Your task to perform on an android device: Show me productivity apps on the Play Store Image 0: 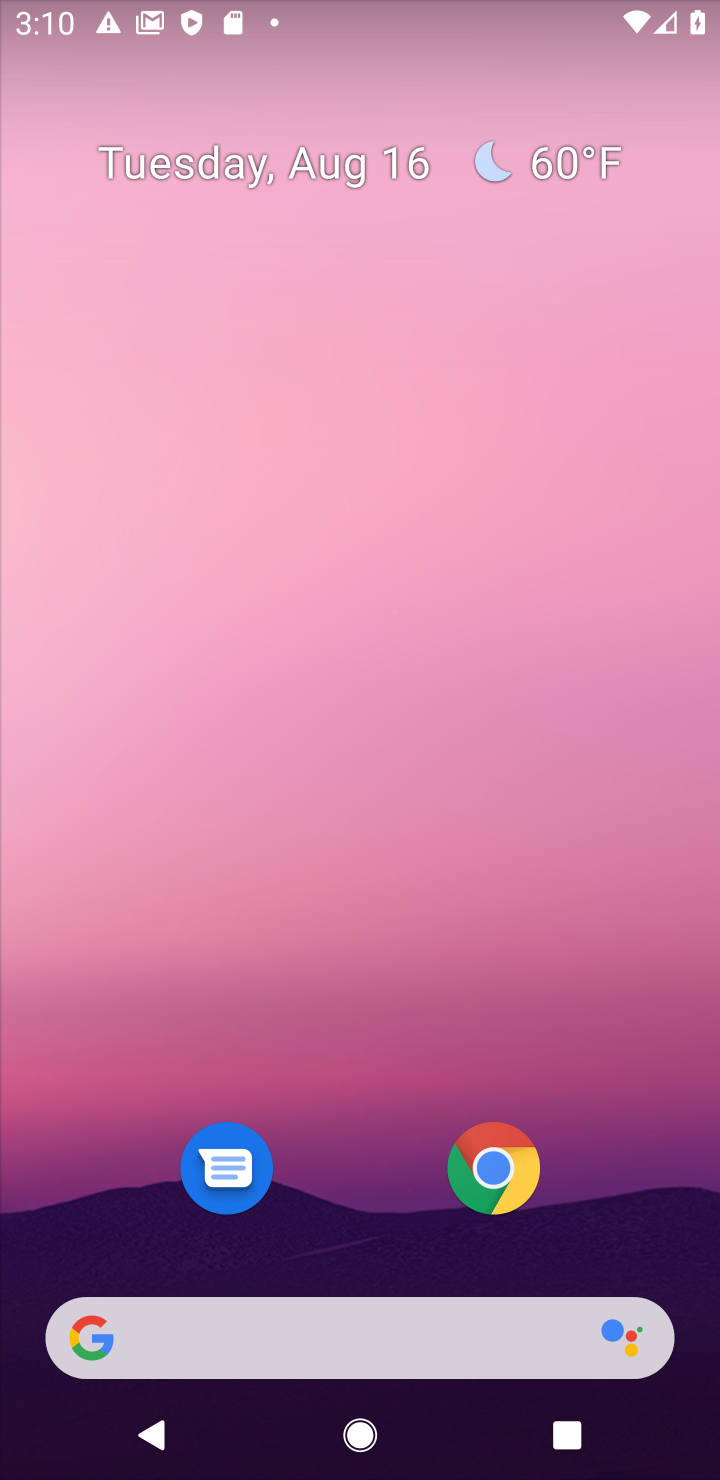
Step 0: press home button
Your task to perform on an android device: Show me productivity apps on the Play Store Image 1: 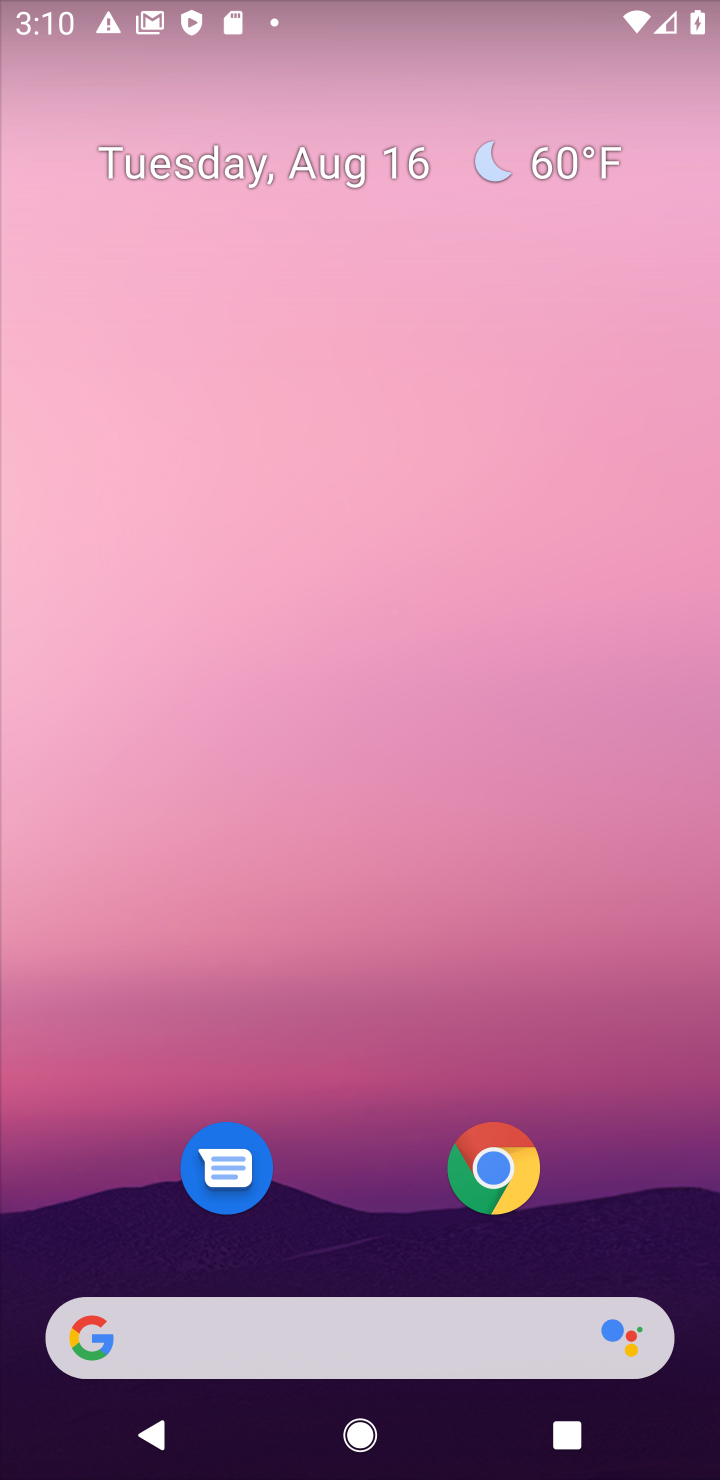
Step 1: drag from (540, 910) to (716, 41)
Your task to perform on an android device: Show me productivity apps on the Play Store Image 2: 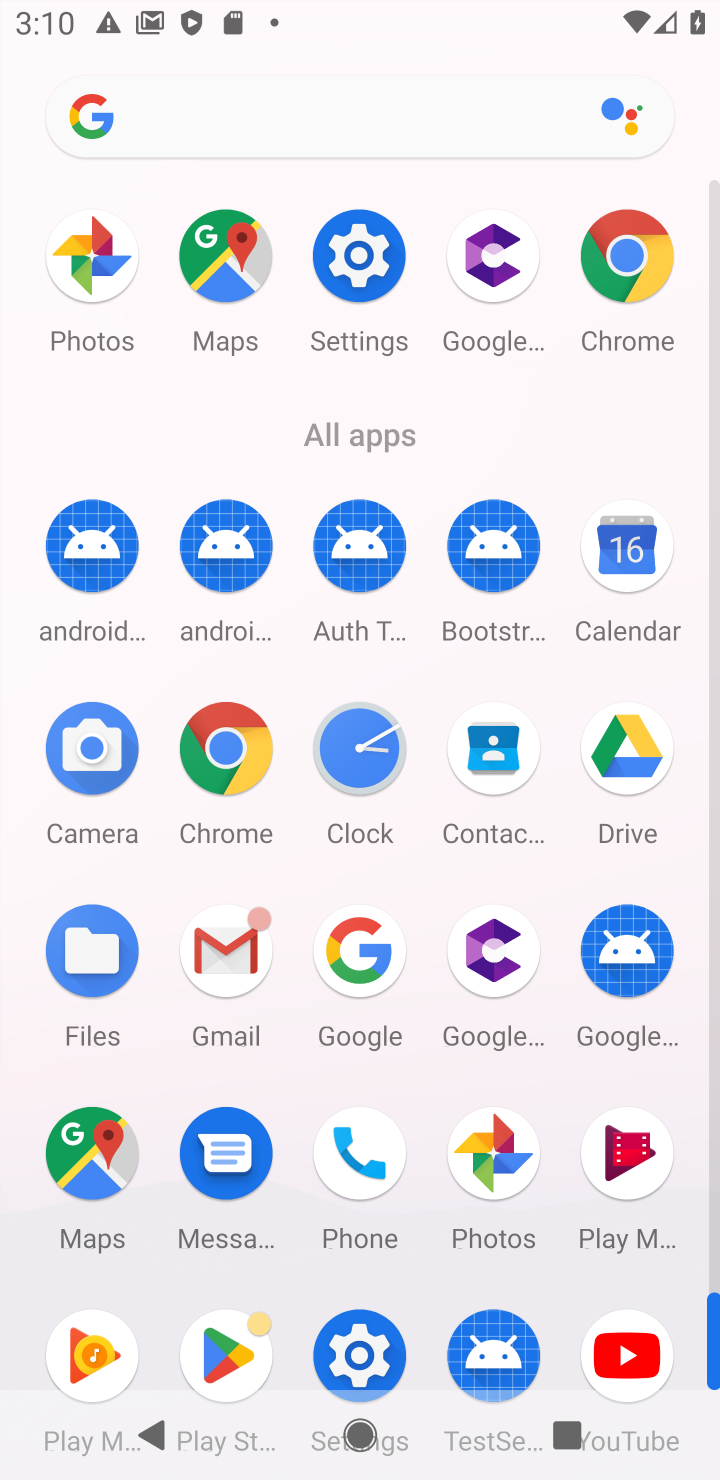
Step 2: click (230, 1337)
Your task to perform on an android device: Show me productivity apps on the Play Store Image 3: 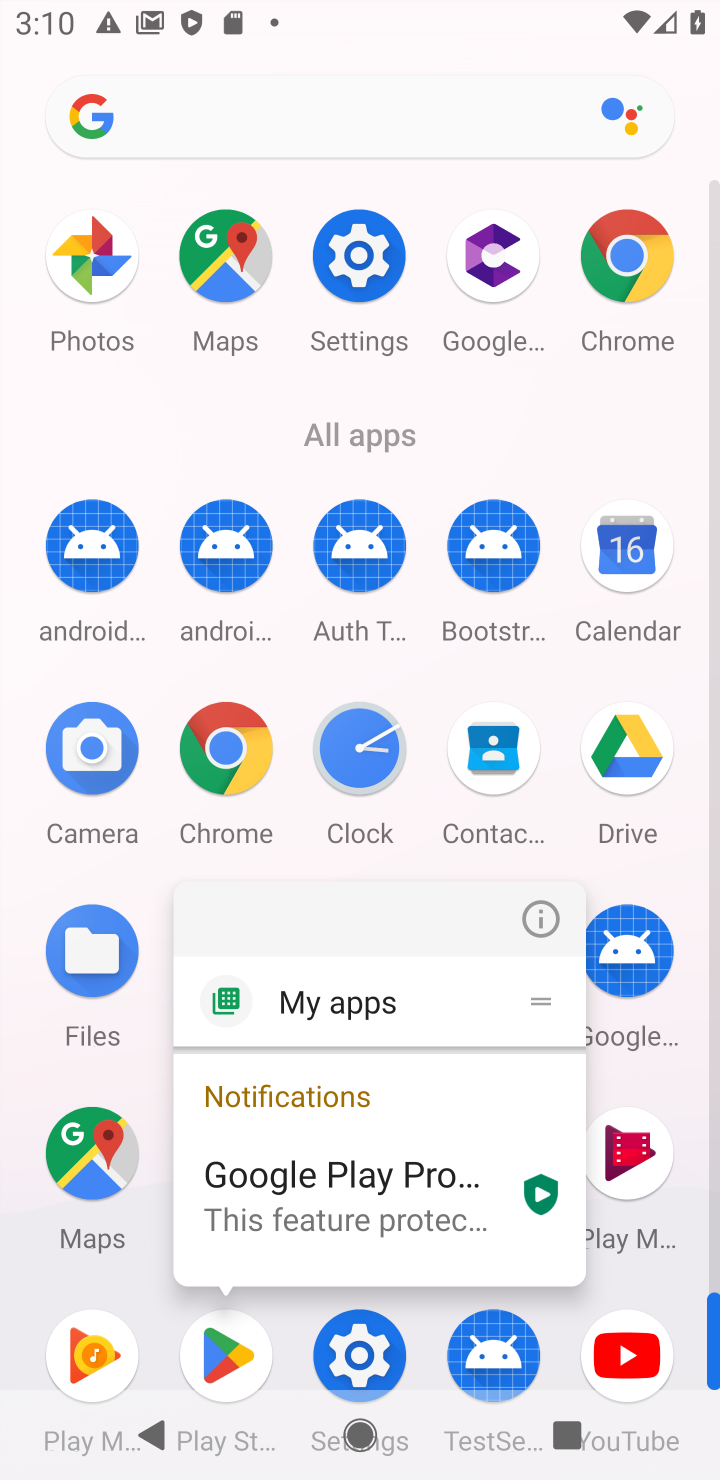
Step 3: click (216, 1353)
Your task to perform on an android device: Show me productivity apps on the Play Store Image 4: 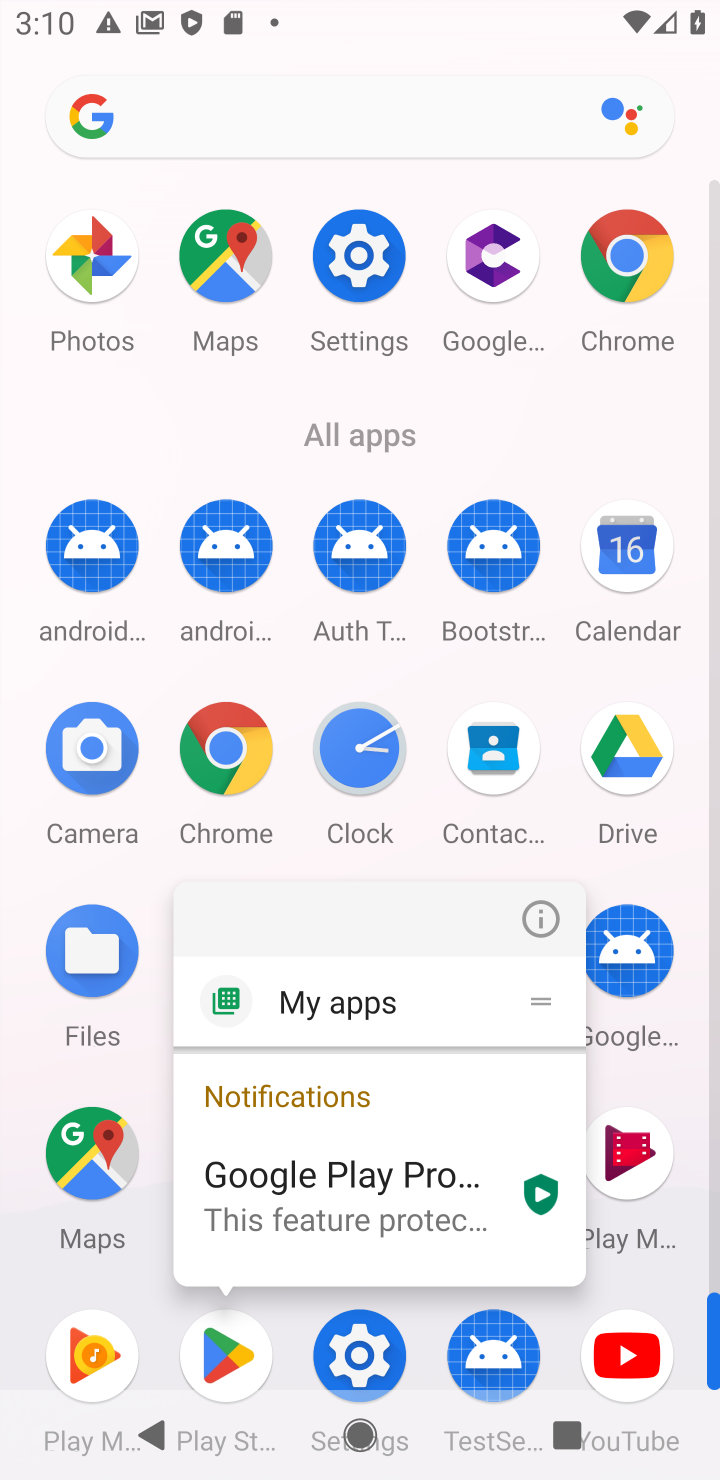
Step 4: click (225, 1346)
Your task to perform on an android device: Show me productivity apps on the Play Store Image 5: 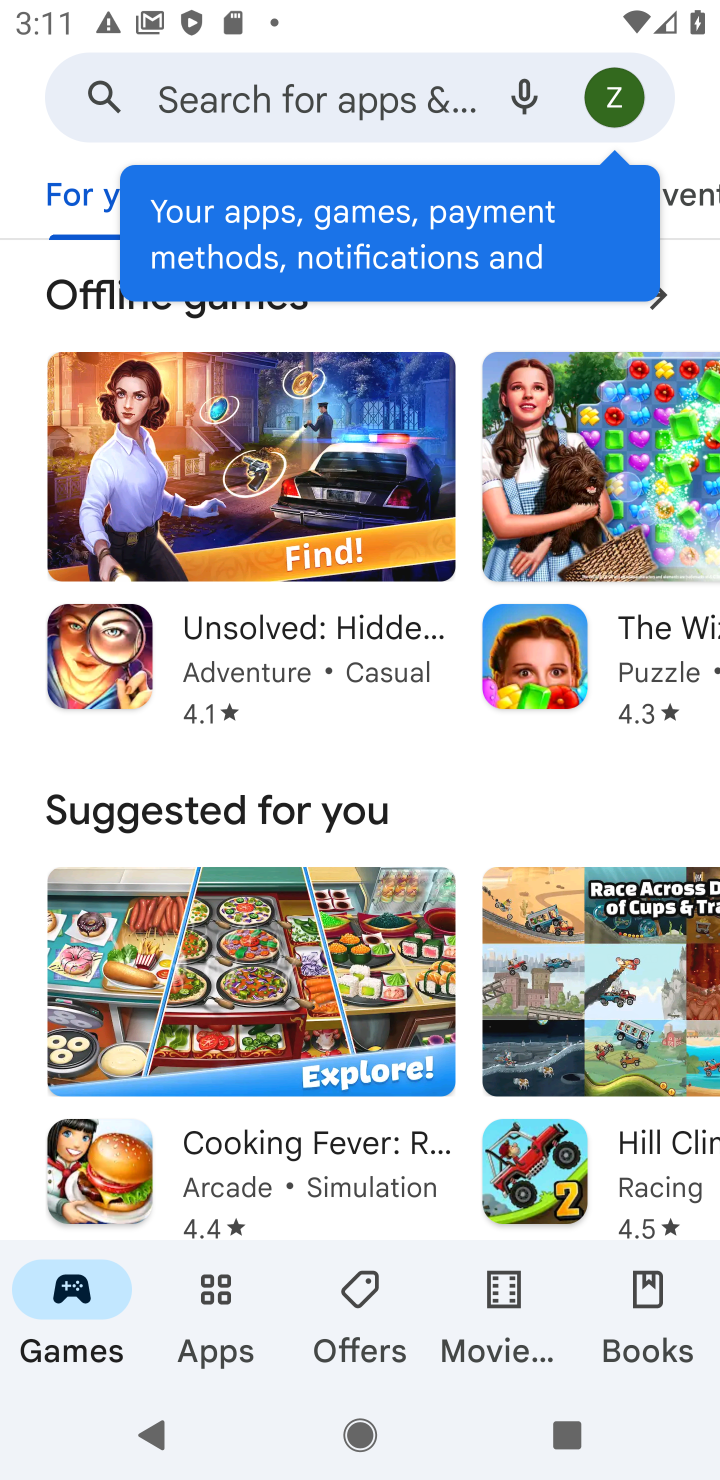
Step 5: click (217, 1303)
Your task to perform on an android device: Show me productivity apps on the Play Store Image 6: 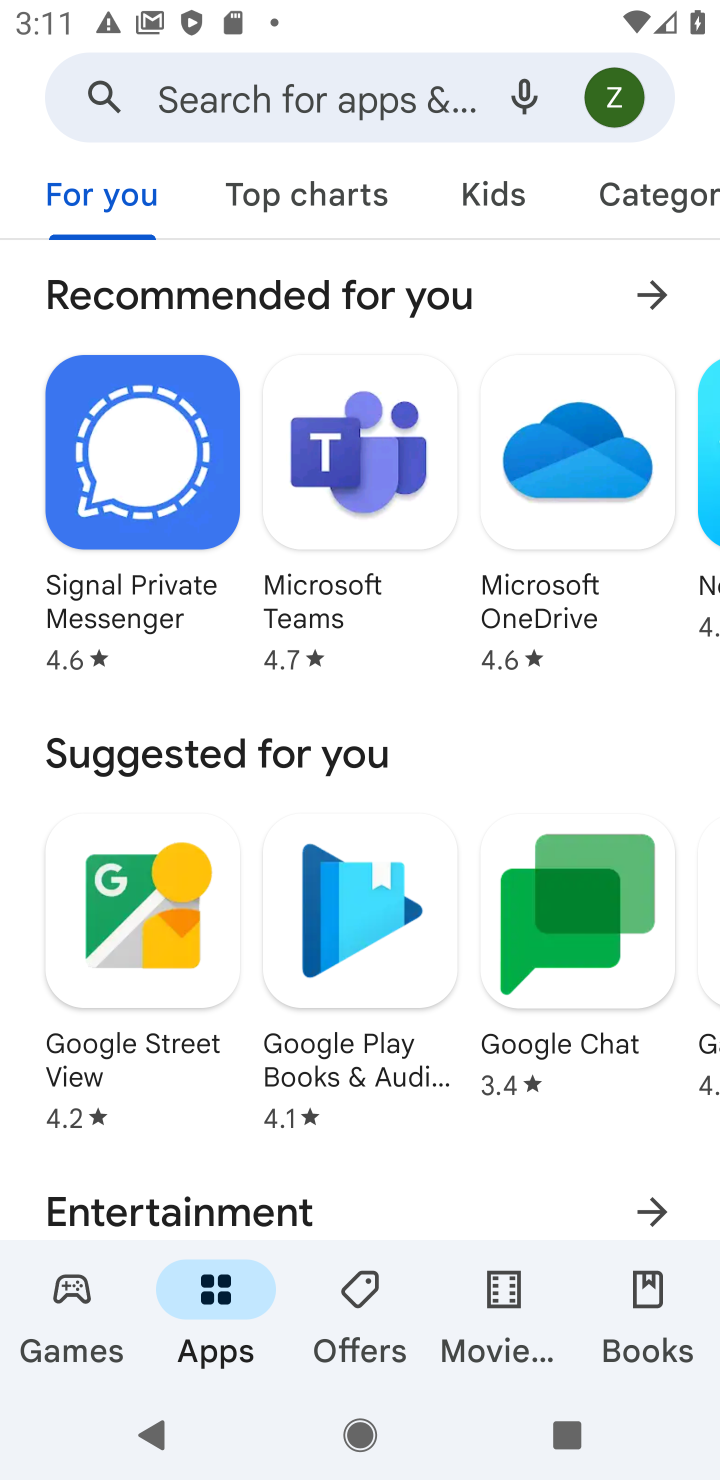
Step 6: click (659, 195)
Your task to perform on an android device: Show me productivity apps on the Play Store Image 7: 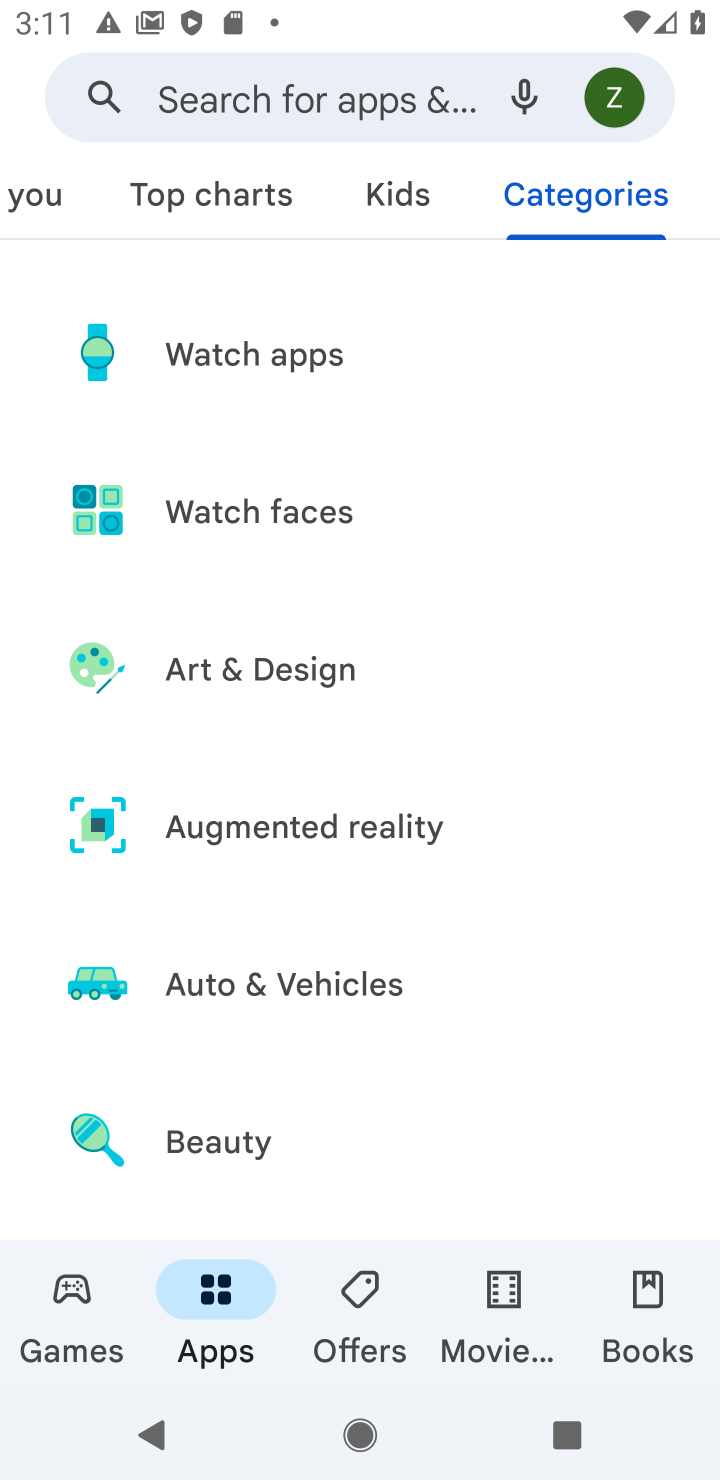
Step 7: drag from (517, 939) to (626, 68)
Your task to perform on an android device: Show me productivity apps on the Play Store Image 8: 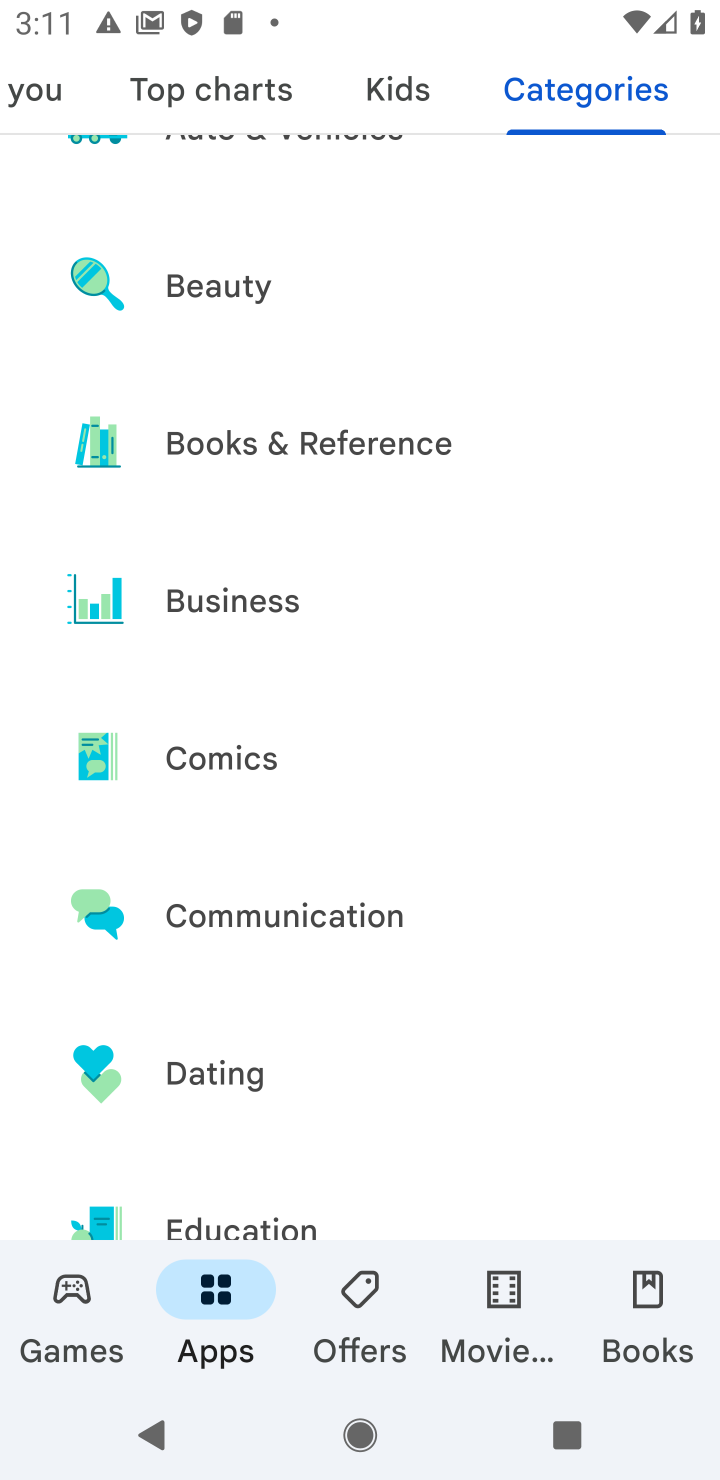
Step 8: drag from (495, 1166) to (711, 3)
Your task to perform on an android device: Show me productivity apps on the Play Store Image 9: 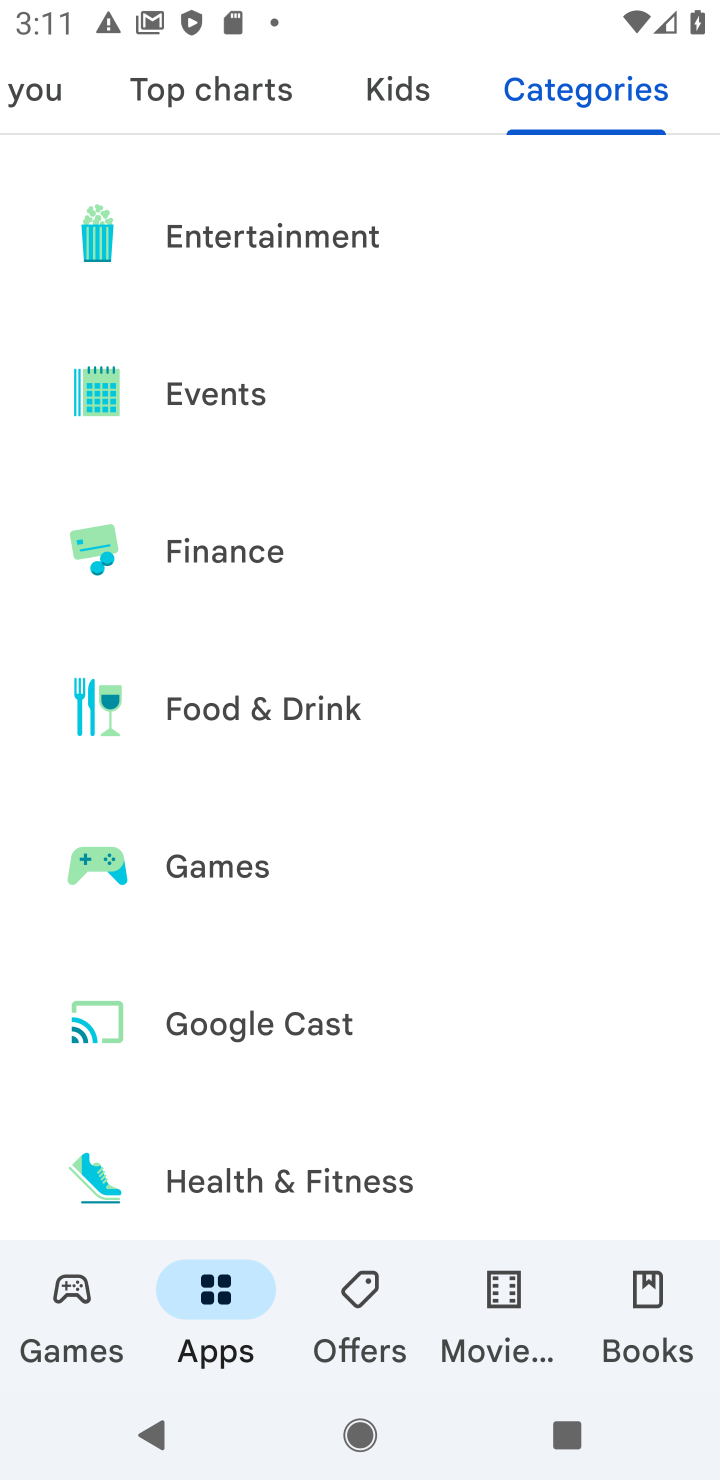
Step 9: drag from (498, 840) to (628, 104)
Your task to perform on an android device: Show me productivity apps on the Play Store Image 10: 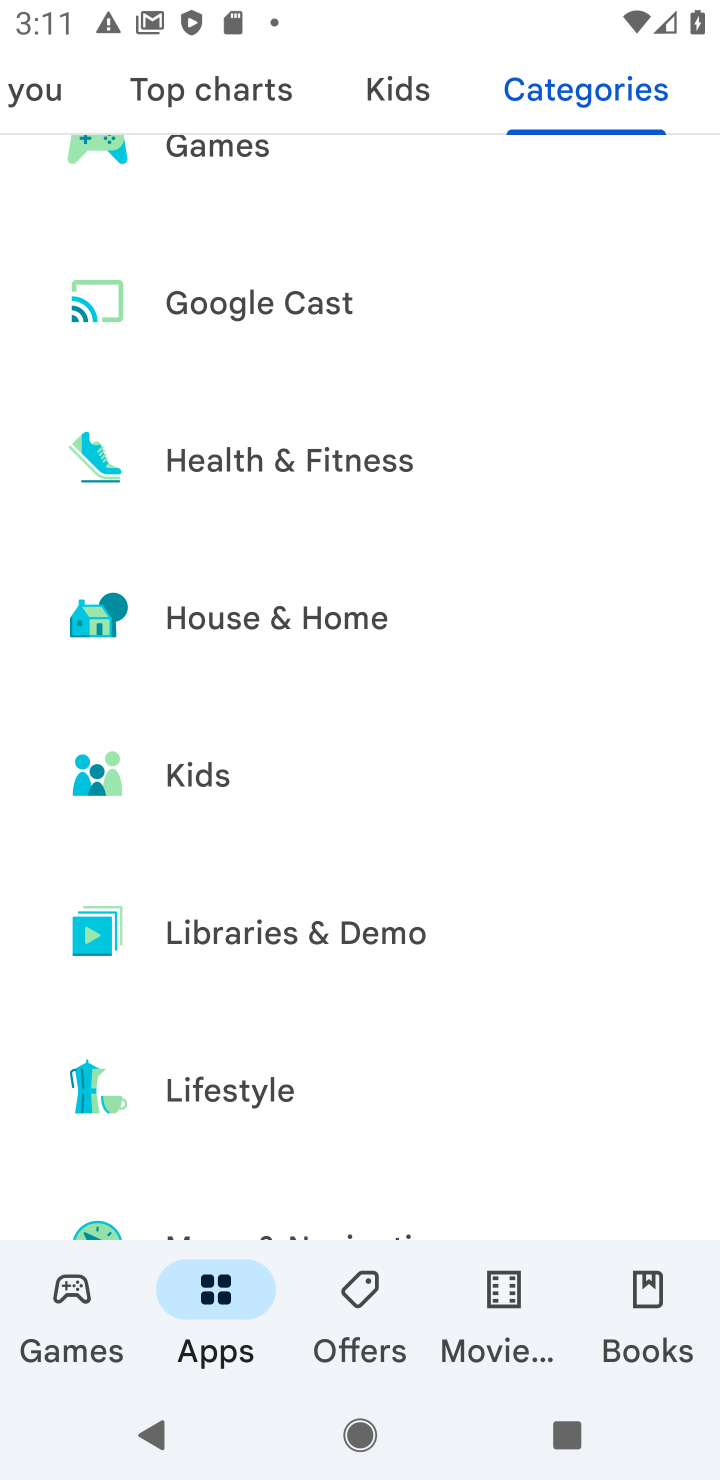
Step 10: drag from (553, 953) to (697, 416)
Your task to perform on an android device: Show me productivity apps on the Play Store Image 11: 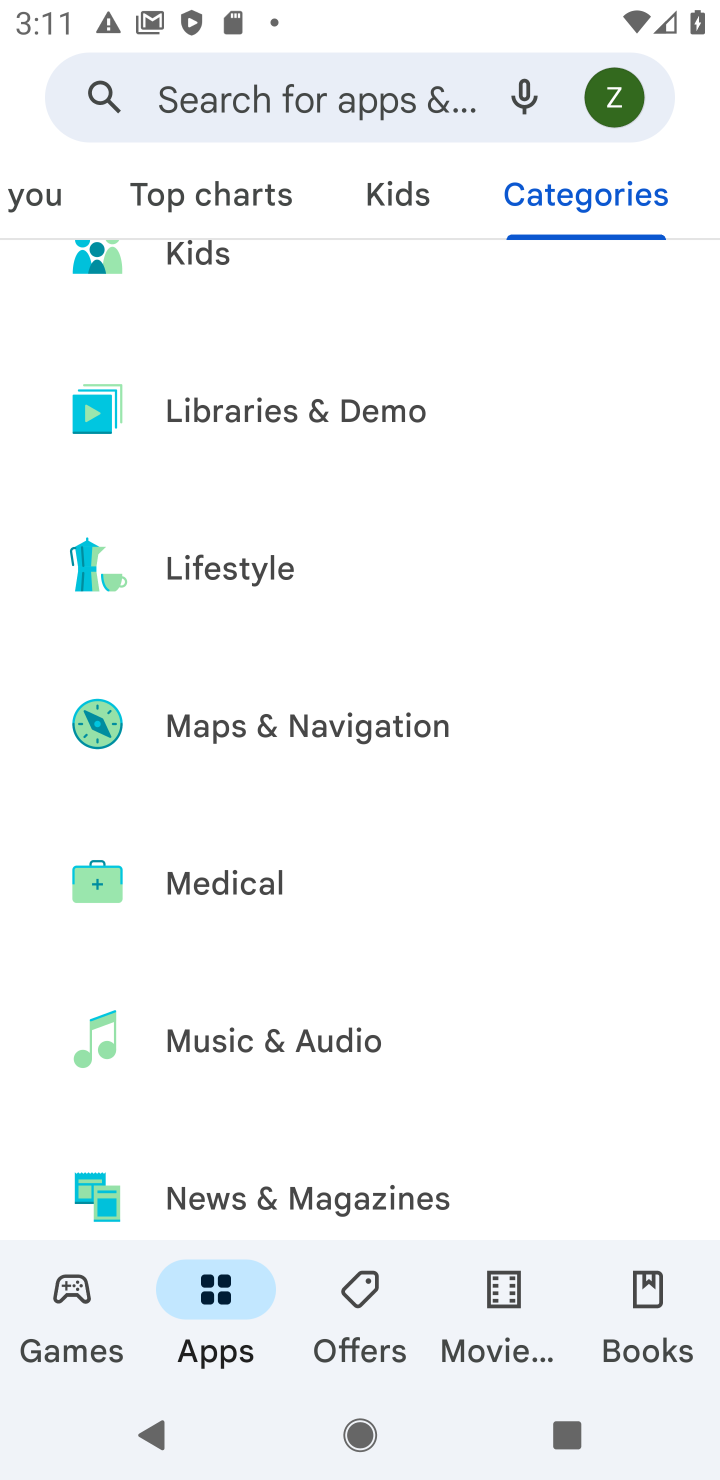
Step 11: drag from (402, 1065) to (534, 144)
Your task to perform on an android device: Show me productivity apps on the Play Store Image 12: 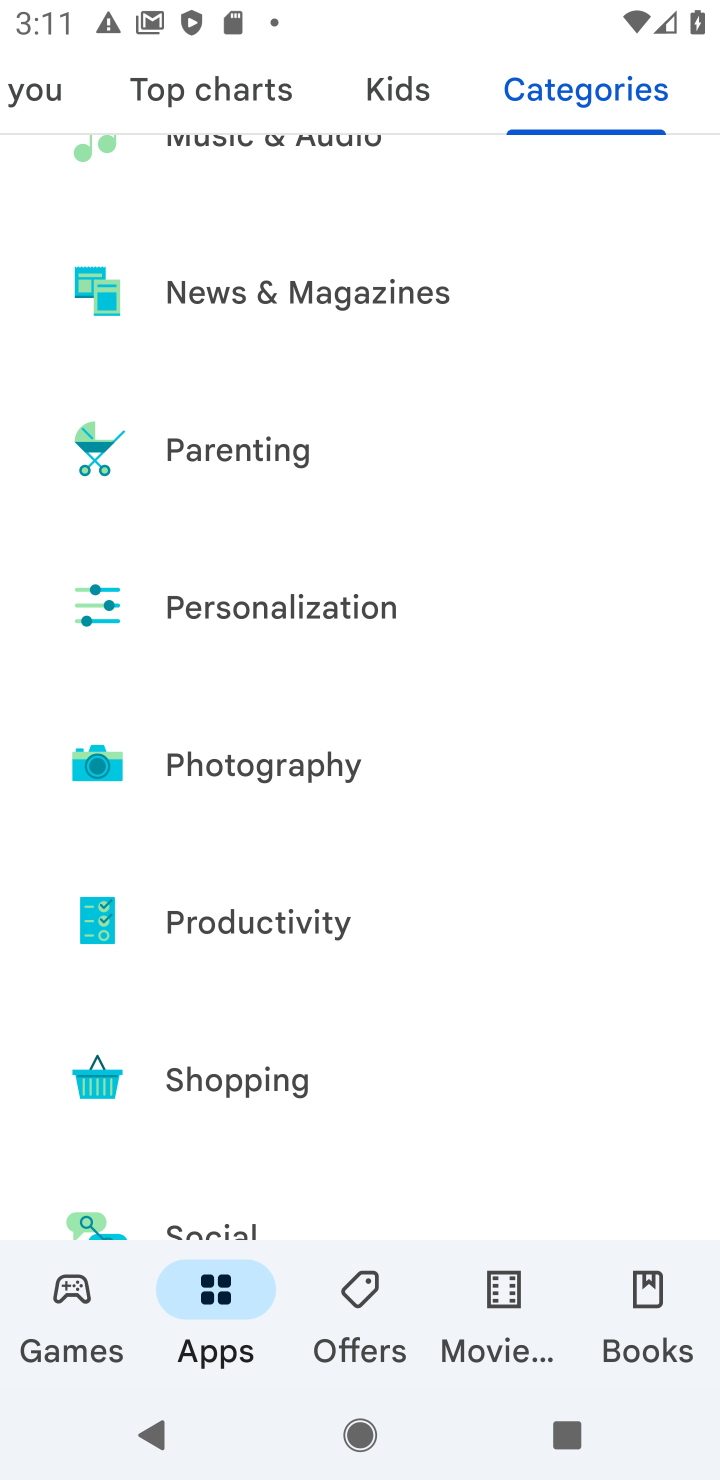
Step 12: click (323, 929)
Your task to perform on an android device: Show me productivity apps on the Play Store Image 13: 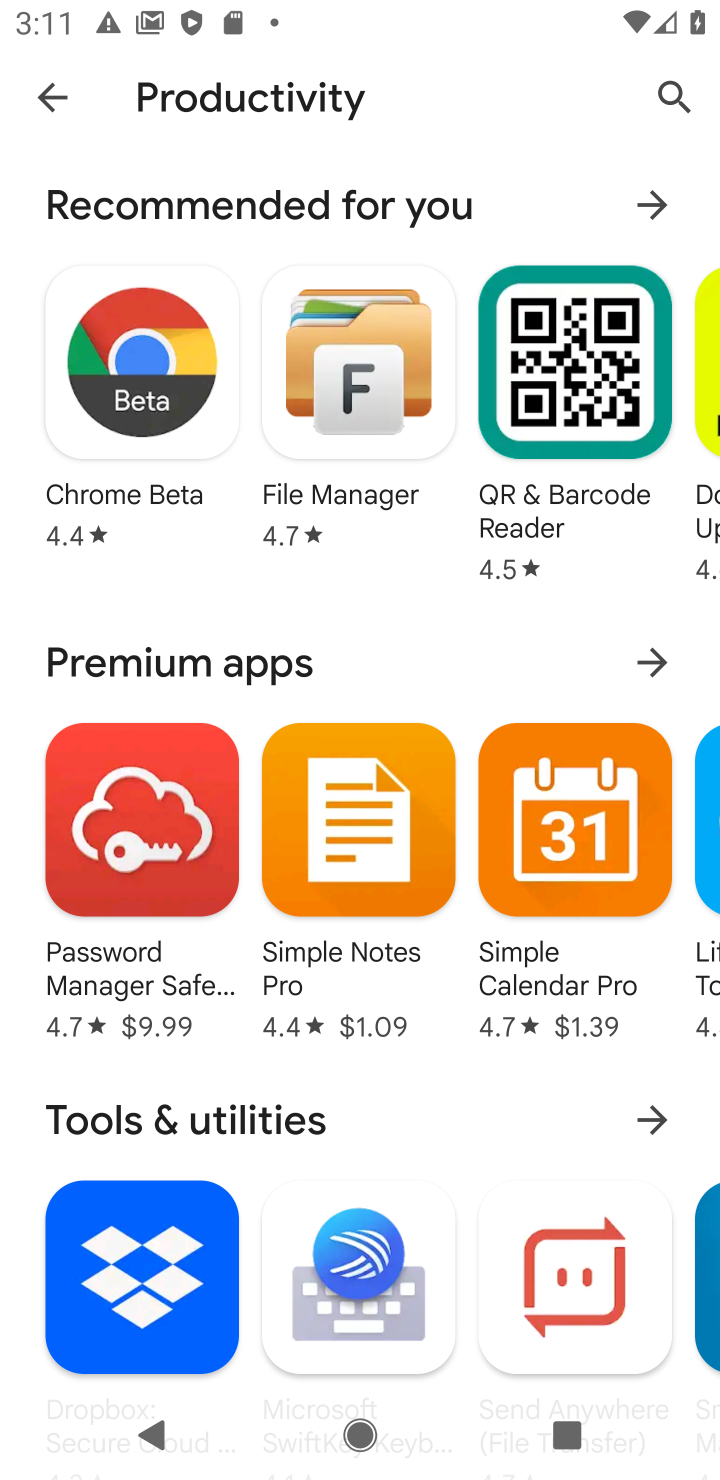
Step 13: task complete